Your task to perform on an android device: open app "PUBG MOBILE" Image 0: 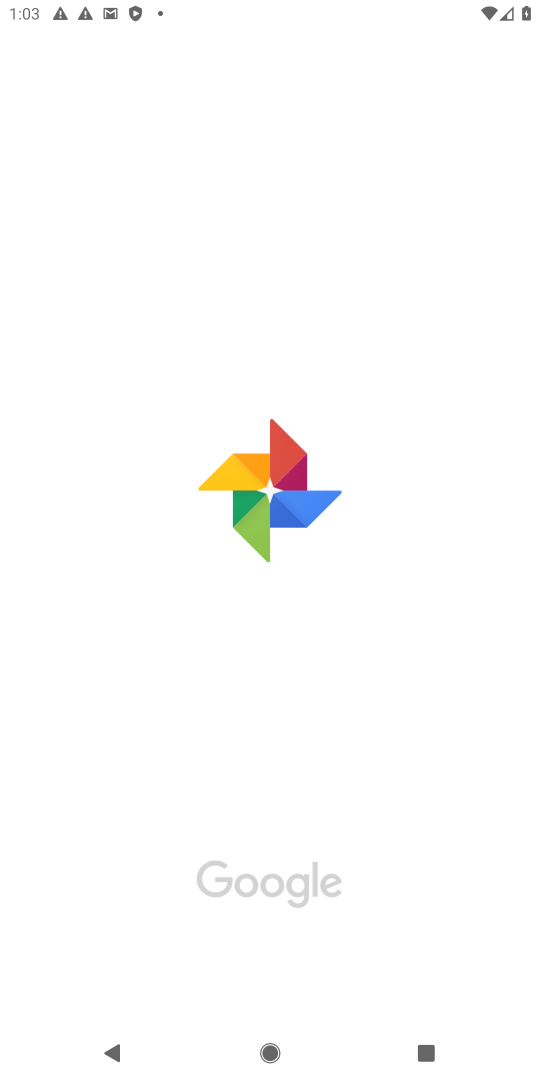
Step 0: press home button
Your task to perform on an android device: open app "PUBG MOBILE" Image 1: 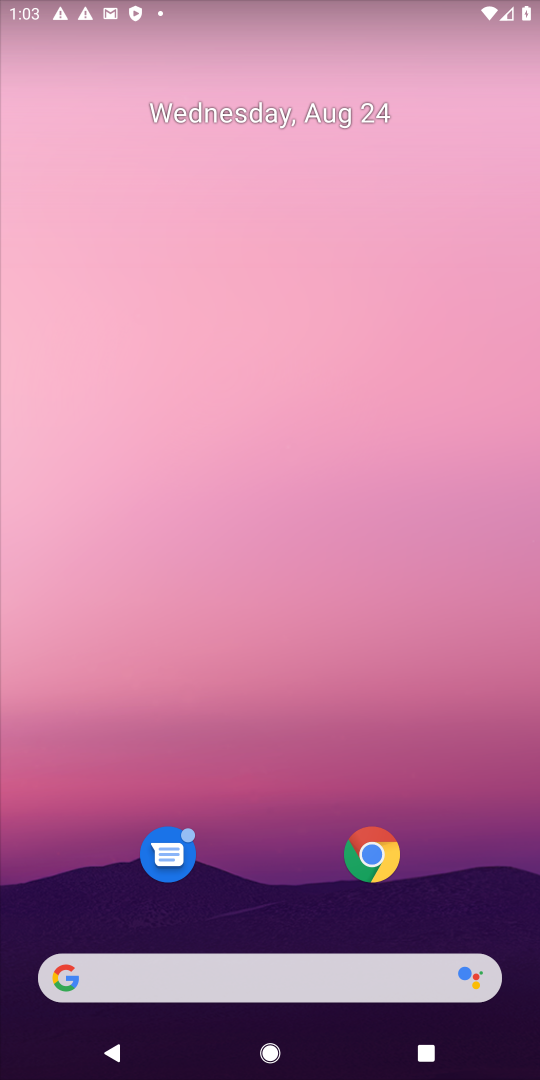
Step 1: drag from (481, 859) to (538, 283)
Your task to perform on an android device: open app "PUBG MOBILE" Image 2: 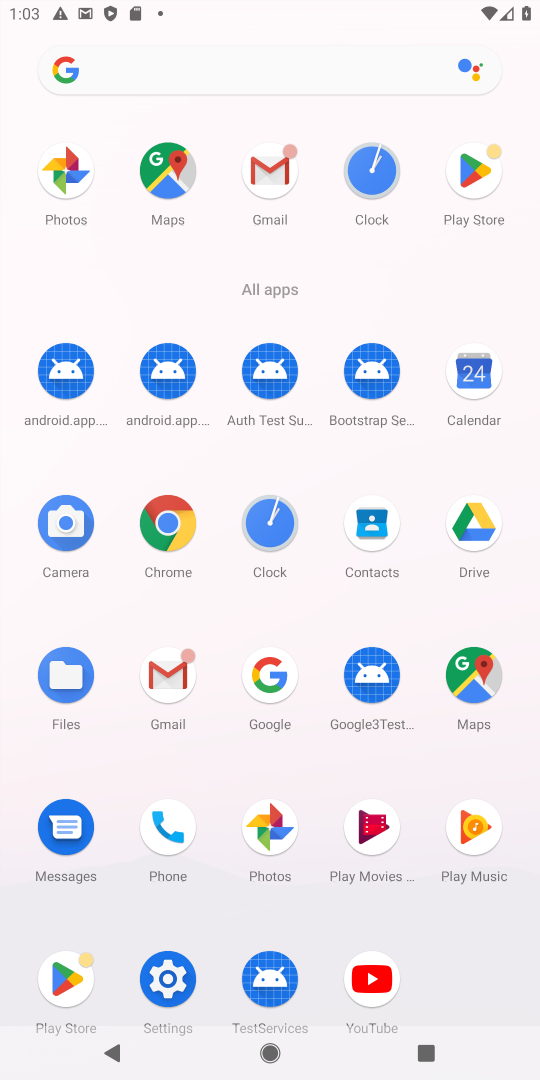
Step 2: click (481, 173)
Your task to perform on an android device: open app "PUBG MOBILE" Image 3: 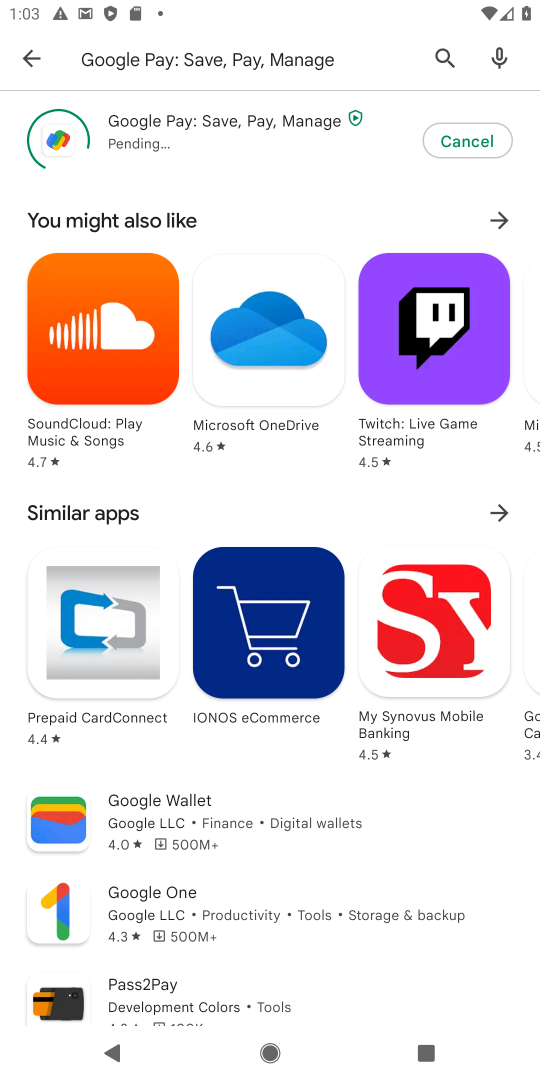
Step 3: press back button
Your task to perform on an android device: open app "PUBG MOBILE" Image 4: 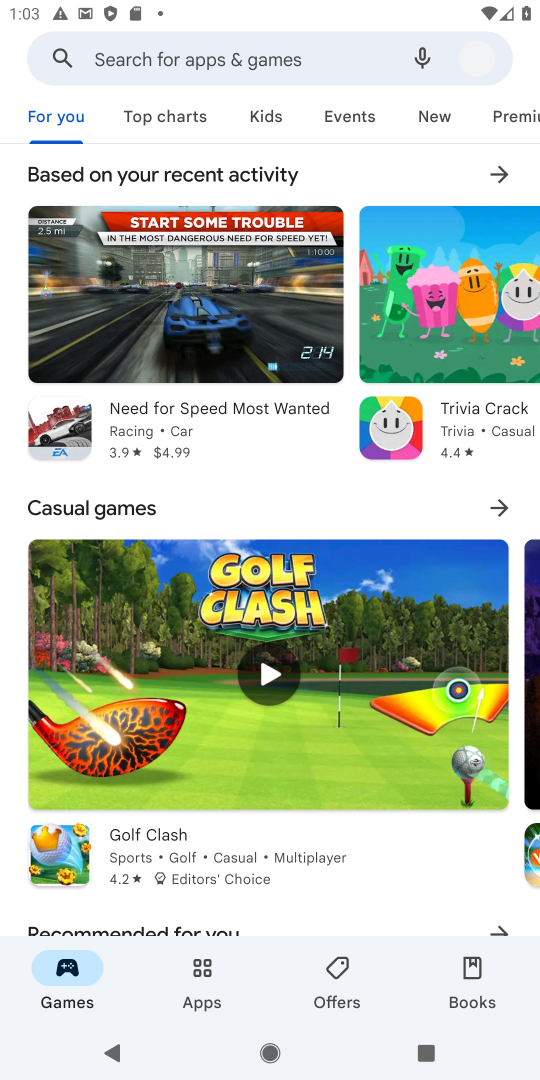
Step 4: click (254, 51)
Your task to perform on an android device: open app "PUBG MOBILE" Image 5: 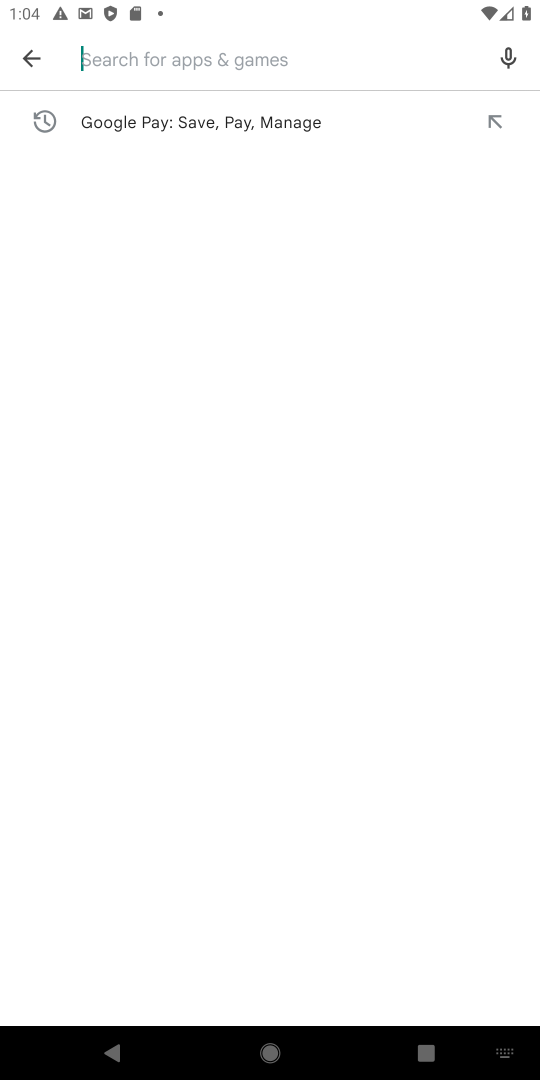
Step 5: type "PUBG MOBILE"
Your task to perform on an android device: open app "PUBG MOBILE" Image 6: 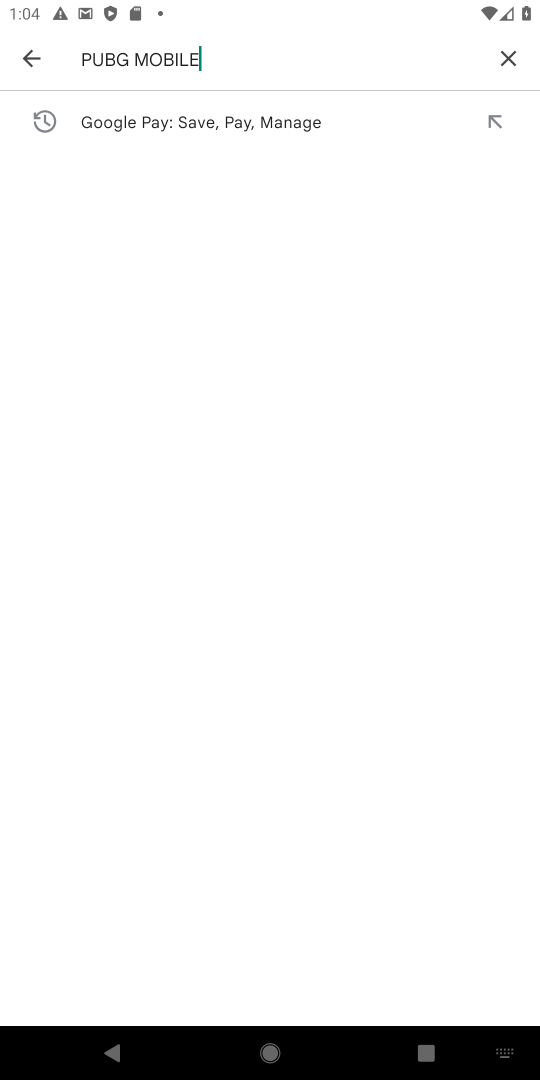
Step 6: press enter
Your task to perform on an android device: open app "PUBG MOBILE" Image 7: 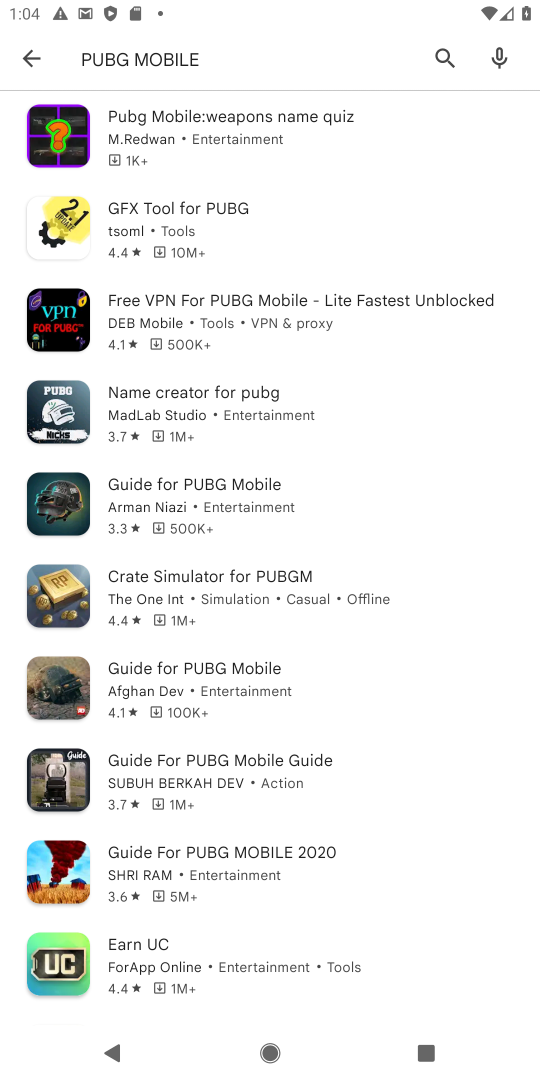
Step 7: task complete